Your task to perform on an android device: turn on showing notifications on the lock screen Image 0: 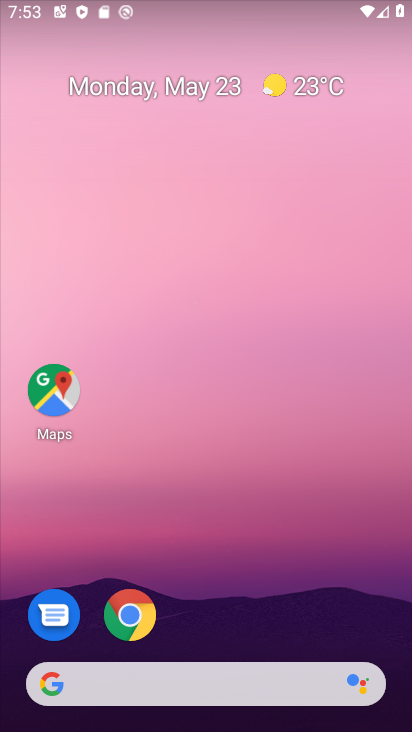
Step 0: drag from (257, 612) to (266, 210)
Your task to perform on an android device: turn on showing notifications on the lock screen Image 1: 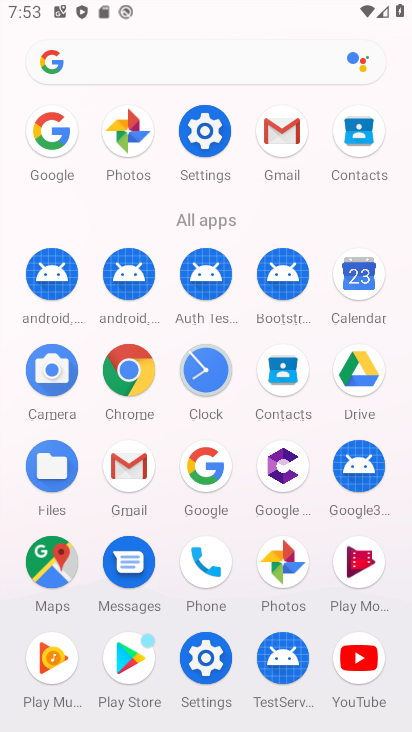
Step 1: click (202, 130)
Your task to perform on an android device: turn on showing notifications on the lock screen Image 2: 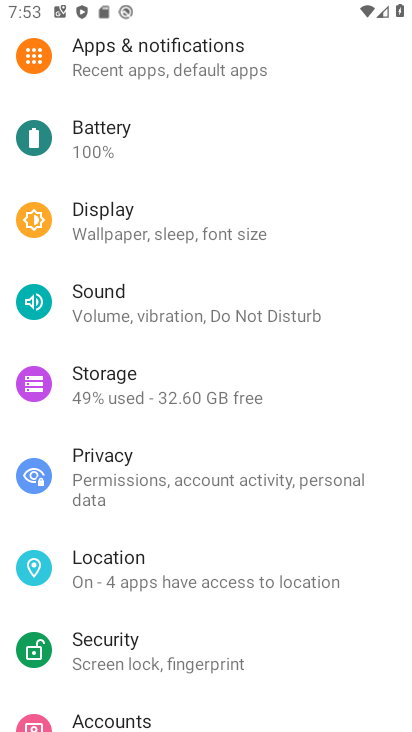
Step 2: drag from (179, 158) to (192, 253)
Your task to perform on an android device: turn on showing notifications on the lock screen Image 3: 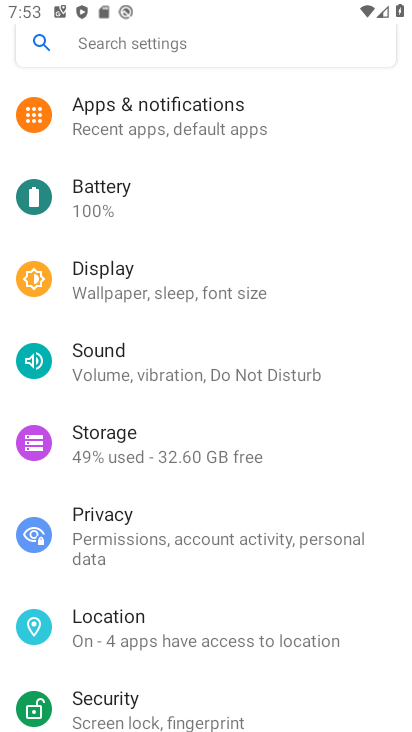
Step 3: click (163, 109)
Your task to perform on an android device: turn on showing notifications on the lock screen Image 4: 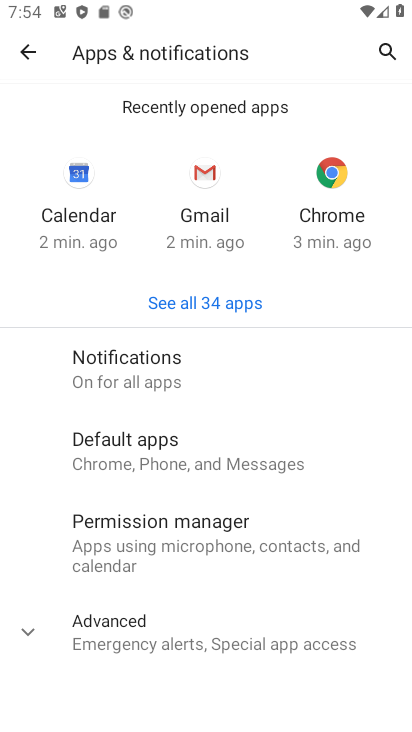
Step 4: click (131, 353)
Your task to perform on an android device: turn on showing notifications on the lock screen Image 5: 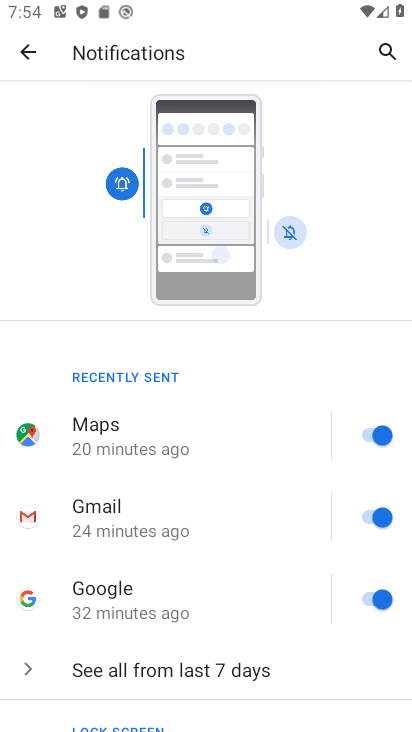
Step 5: drag from (109, 640) to (207, 529)
Your task to perform on an android device: turn on showing notifications on the lock screen Image 6: 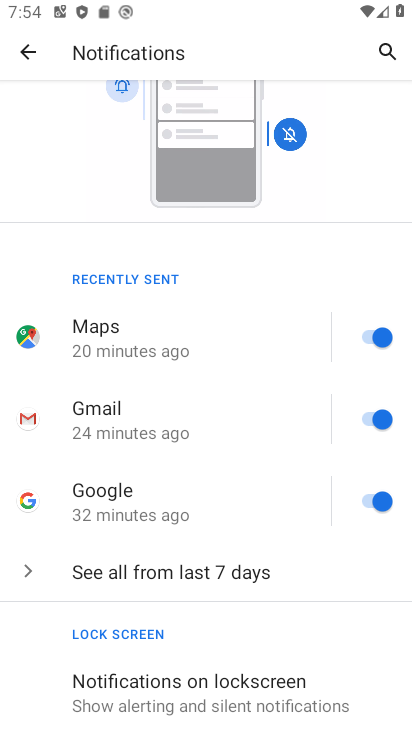
Step 6: drag from (197, 639) to (242, 534)
Your task to perform on an android device: turn on showing notifications on the lock screen Image 7: 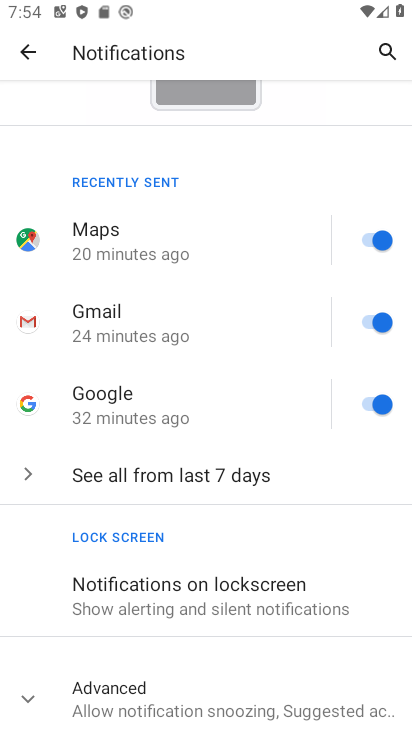
Step 7: click (213, 576)
Your task to perform on an android device: turn on showing notifications on the lock screen Image 8: 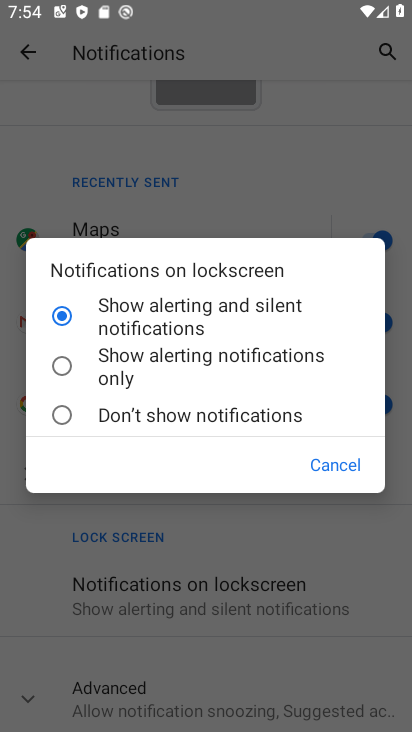
Step 8: click (65, 315)
Your task to perform on an android device: turn on showing notifications on the lock screen Image 9: 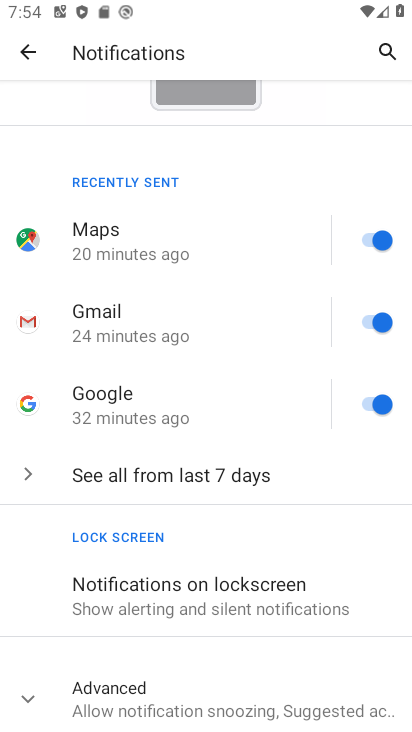
Step 9: task complete